Your task to perform on an android device: What's the weather like in Beijing? Image 0: 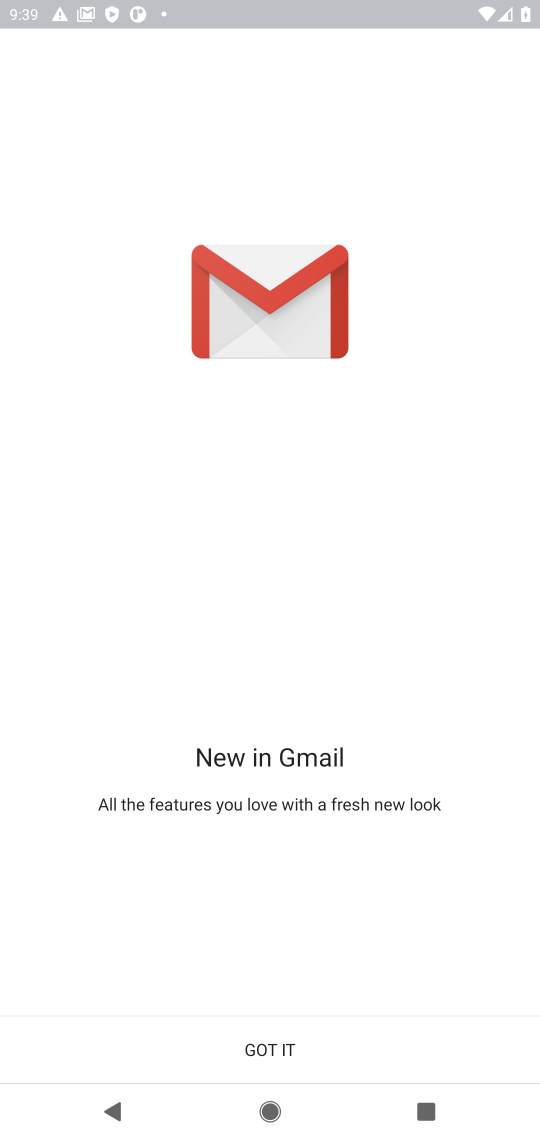
Step 0: press home button
Your task to perform on an android device: What's the weather like in Beijing? Image 1: 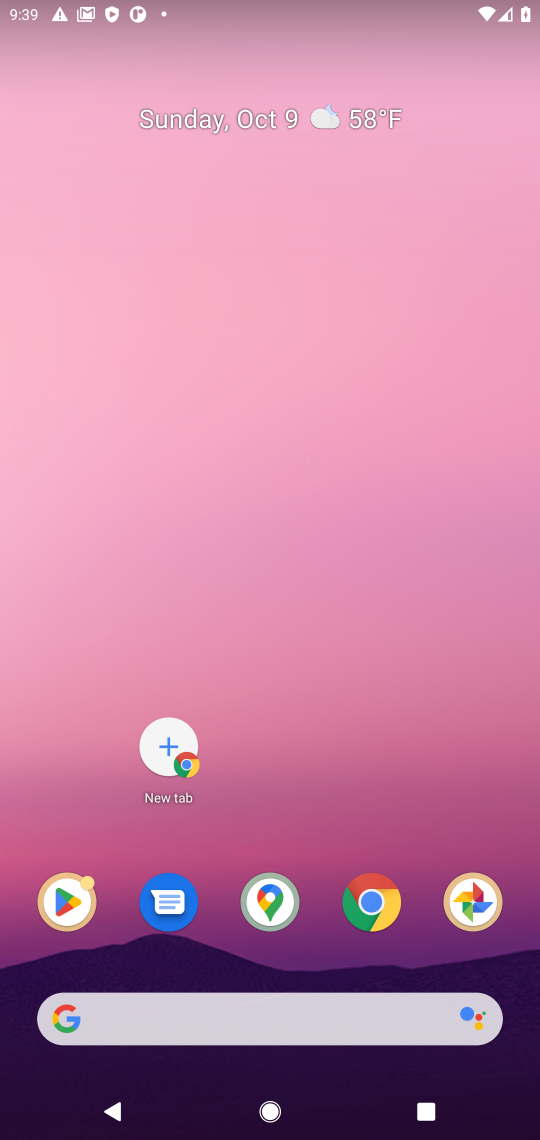
Step 1: click (370, 901)
Your task to perform on an android device: What's the weather like in Beijing? Image 2: 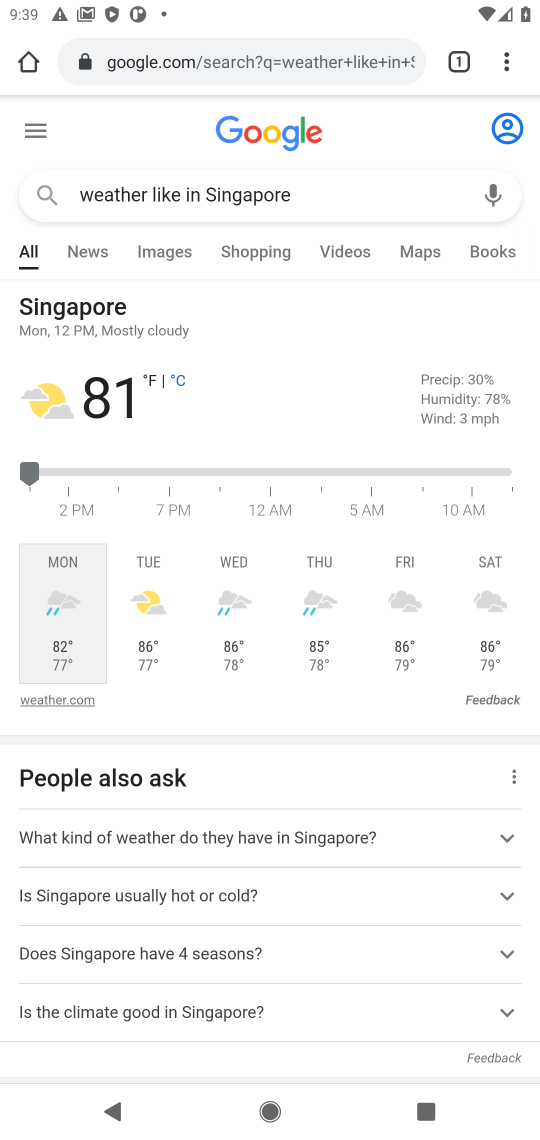
Step 2: click (198, 64)
Your task to perform on an android device: What's the weather like in Beijing? Image 3: 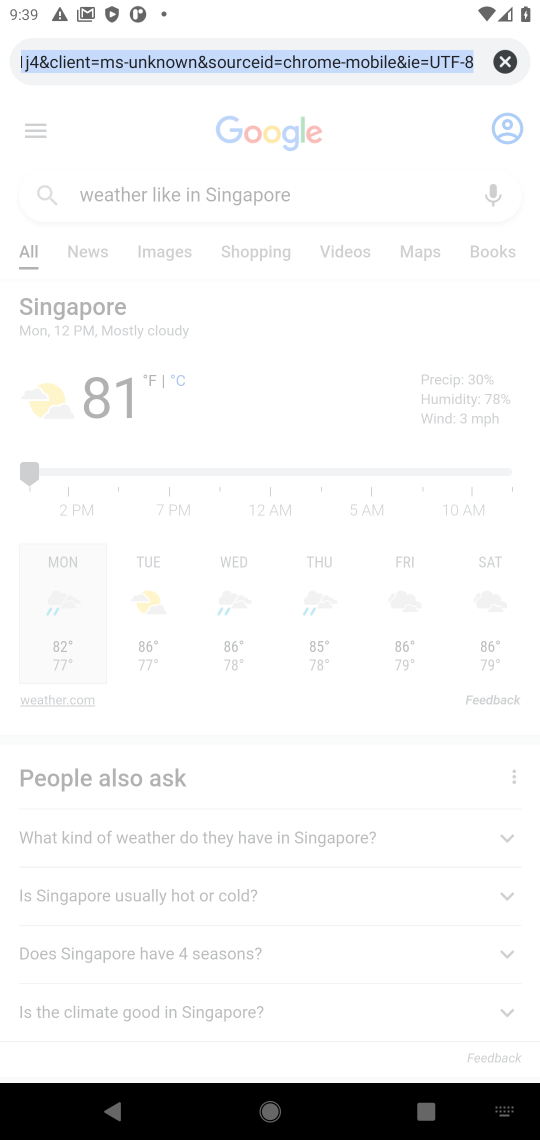
Step 3: type "weather like in Beijing"
Your task to perform on an android device: What's the weather like in Beijing? Image 4: 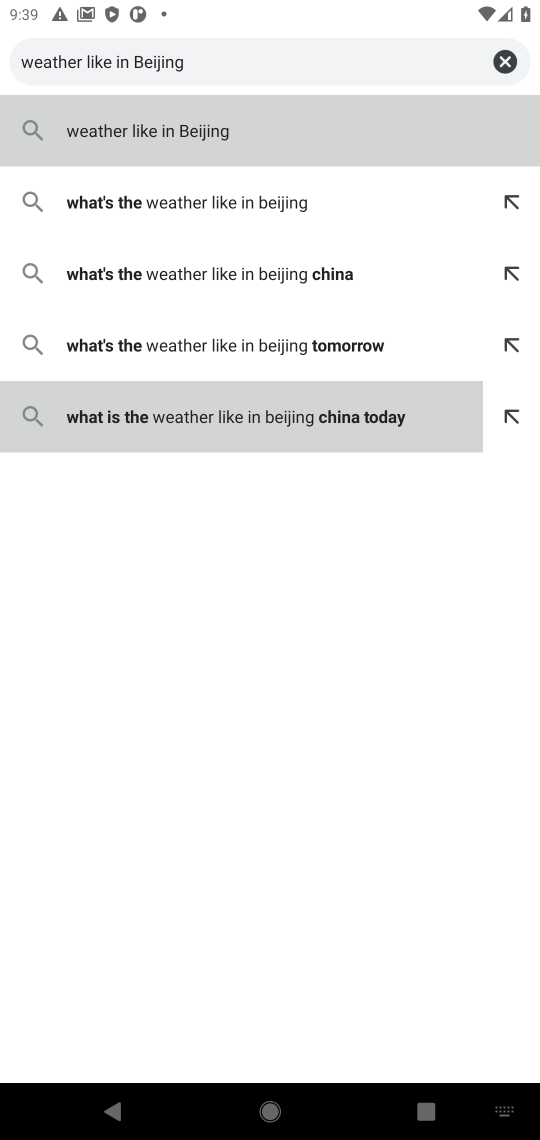
Step 4: type ""
Your task to perform on an android device: What's the weather like in Beijing? Image 5: 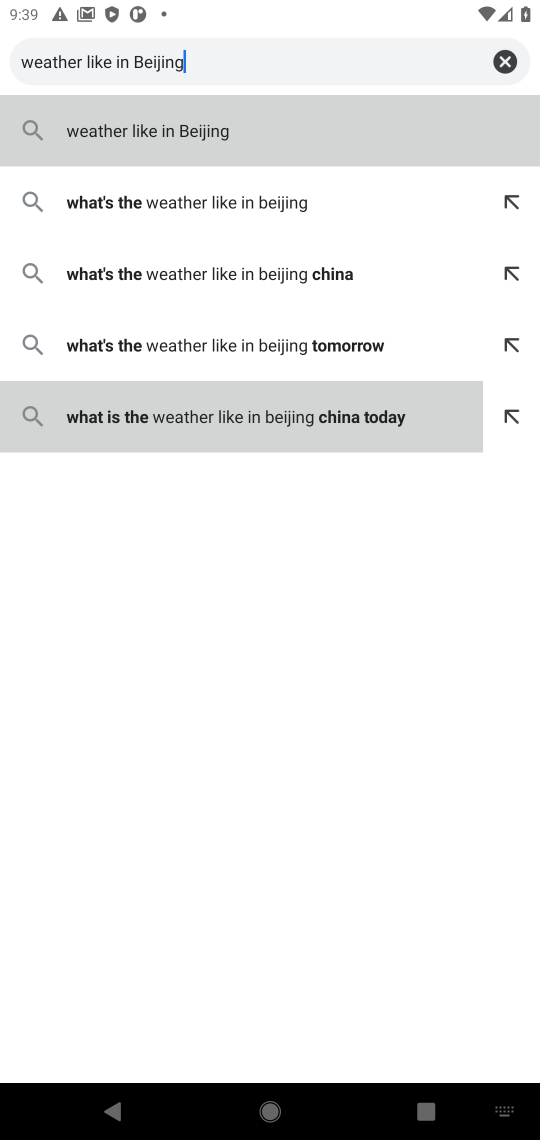
Step 5: click (152, 128)
Your task to perform on an android device: What's the weather like in Beijing? Image 6: 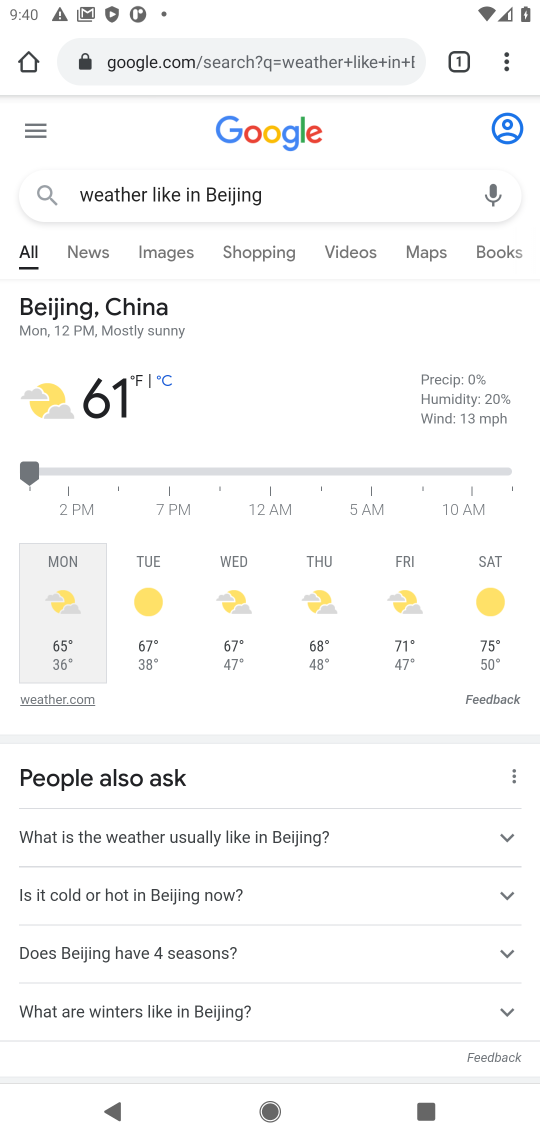
Step 6: task complete